Your task to perform on an android device: Search for "macbook" on amazon.com, select the first entry, add it to the cart, then select checkout. Image 0: 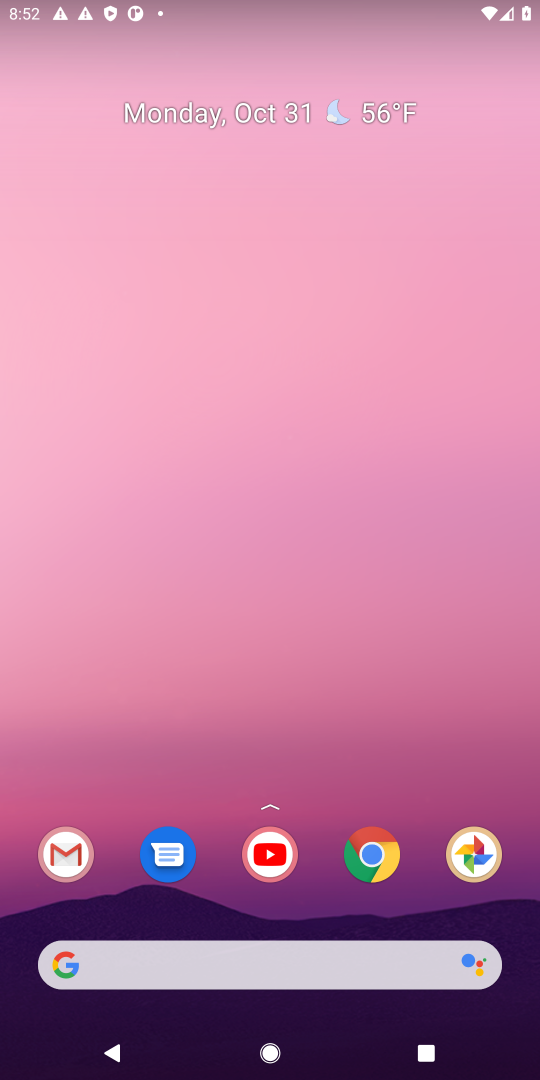
Step 0: click (197, 955)
Your task to perform on an android device: Search for "macbook" on amazon.com, select the first entry, add it to the cart, then select checkout. Image 1: 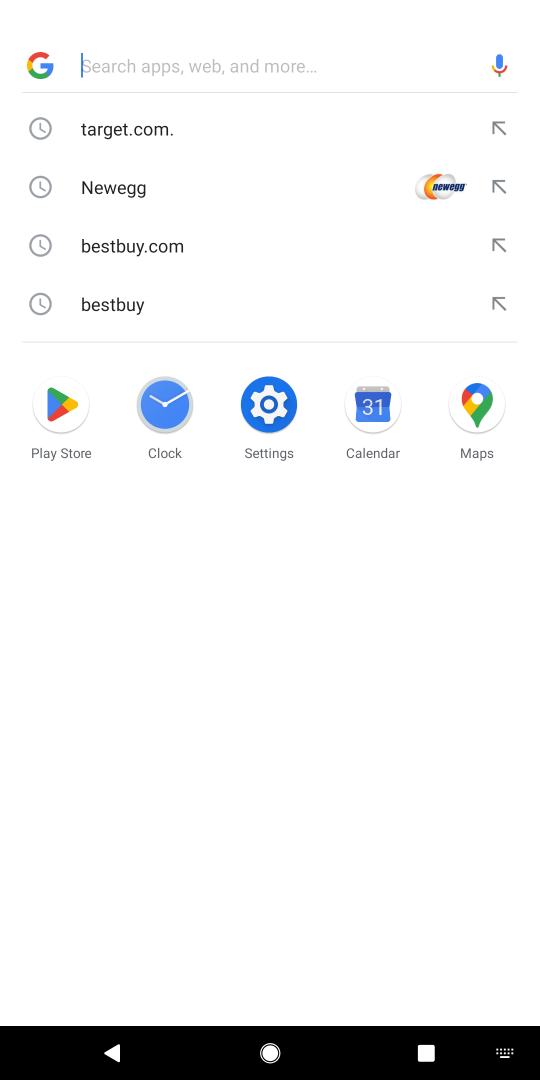
Step 1: type "macbook"
Your task to perform on an android device: Search for "macbook" on amazon.com, select the first entry, add it to the cart, then select checkout. Image 2: 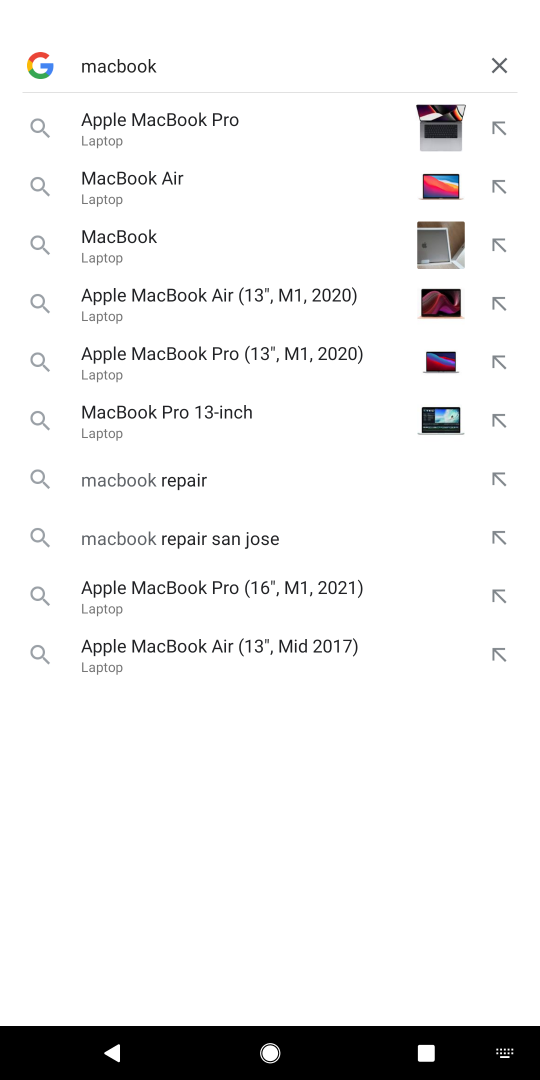
Step 2: click (191, 142)
Your task to perform on an android device: Search for "macbook" on amazon.com, select the first entry, add it to the cart, then select checkout. Image 3: 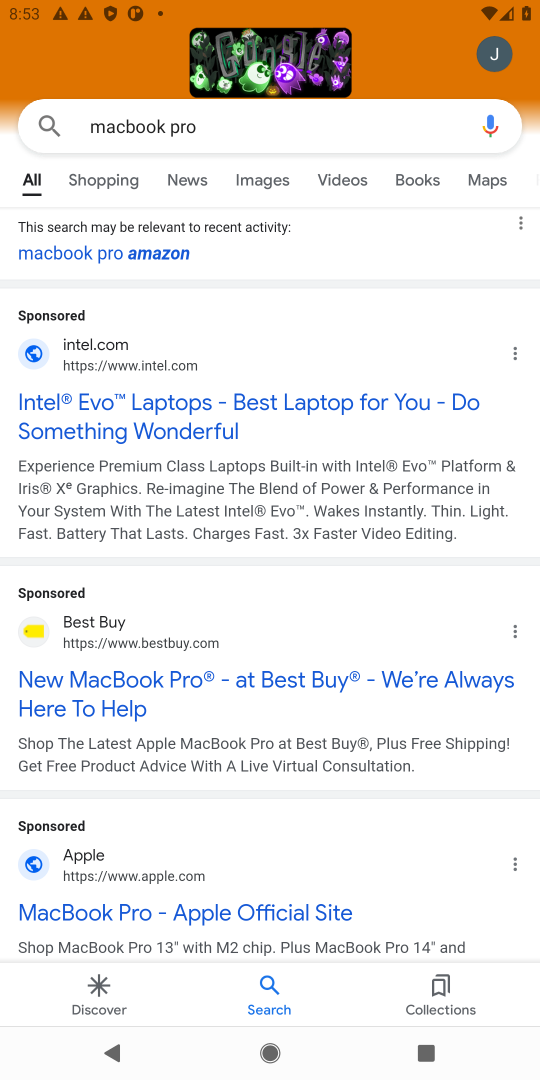
Step 3: drag from (166, 717) to (248, 379)
Your task to perform on an android device: Search for "macbook" on amazon.com, select the first entry, add it to the cart, then select checkout. Image 4: 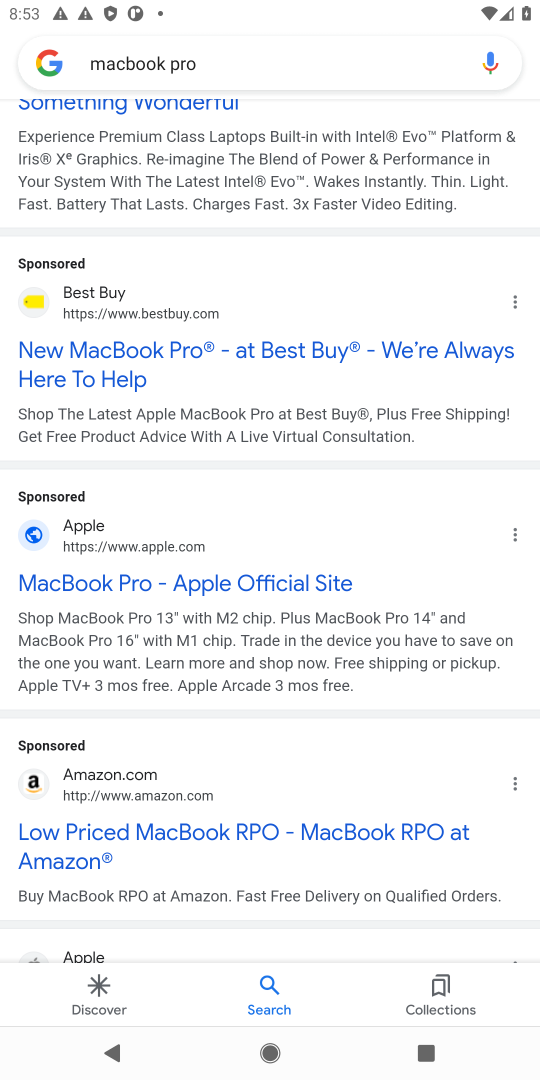
Step 4: click (236, 807)
Your task to perform on an android device: Search for "macbook" on amazon.com, select the first entry, add it to the cart, then select checkout. Image 5: 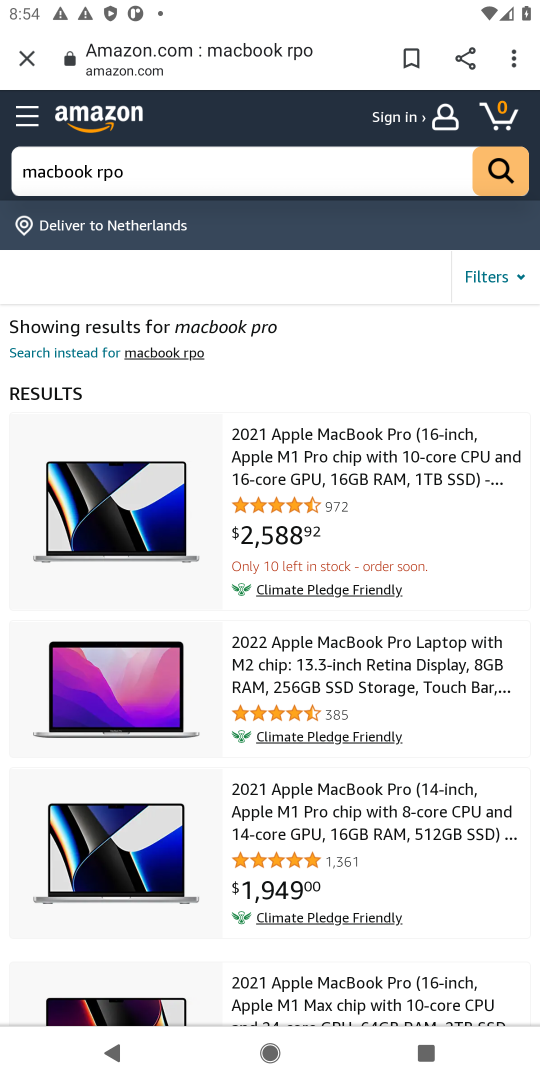
Step 5: click (185, 539)
Your task to perform on an android device: Search for "macbook" on amazon.com, select the first entry, add it to the cart, then select checkout. Image 6: 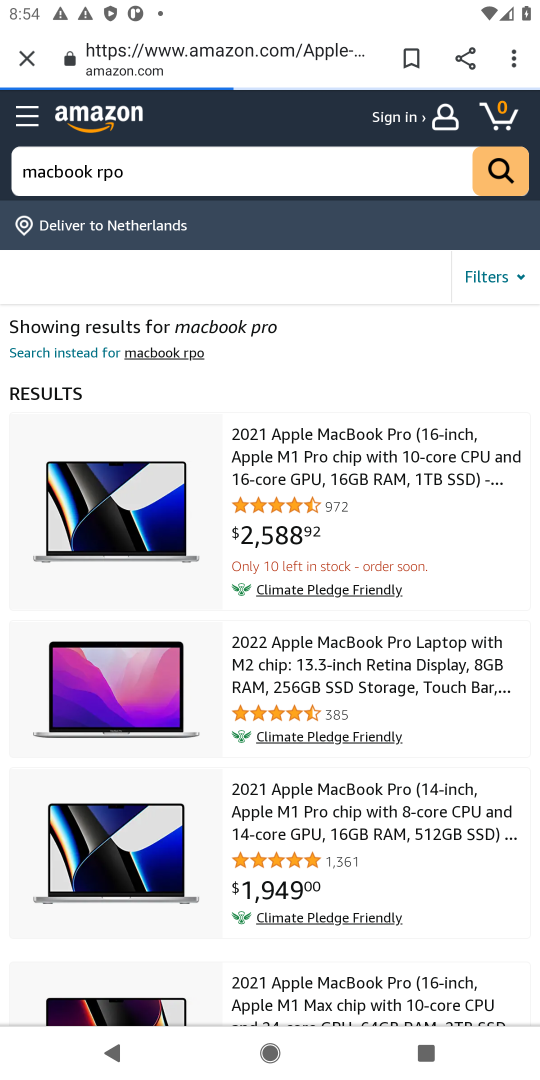
Step 6: task complete